Your task to perform on an android device: turn on the 12-hour format for clock Image 0: 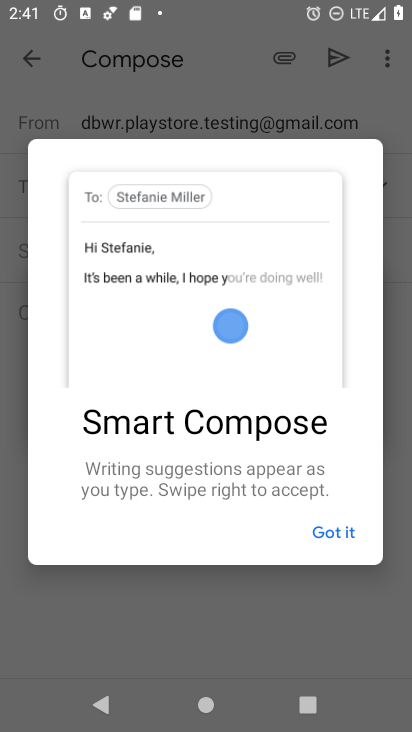
Step 0: press home button
Your task to perform on an android device: turn on the 12-hour format for clock Image 1: 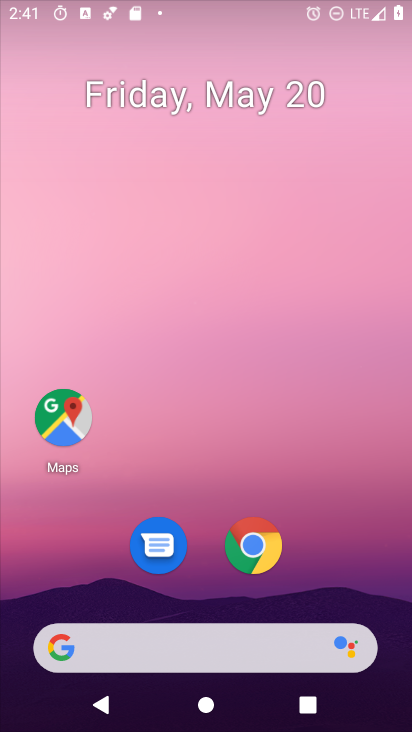
Step 1: drag from (277, 655) to (314, 32)
Your task to perform on an android device: turn on the 12-hour format for clock Image 2: 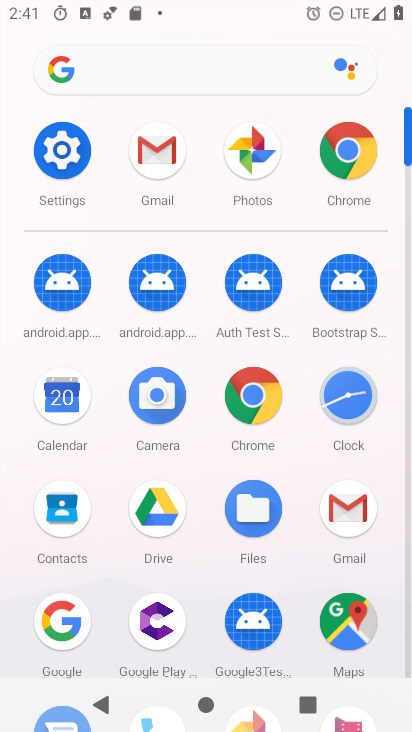
Step 2: click (343, 413)
Your task to perform on an android device: turn on the 12-hour format for clock Image 3: 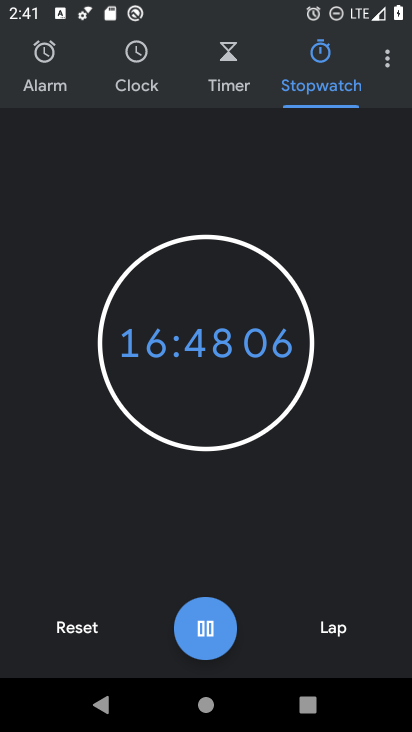
Step 3: drag from (394, 58) to (281, 113)
Your task to perform on an android device: turn on the 12-hour format for clock Image 4: 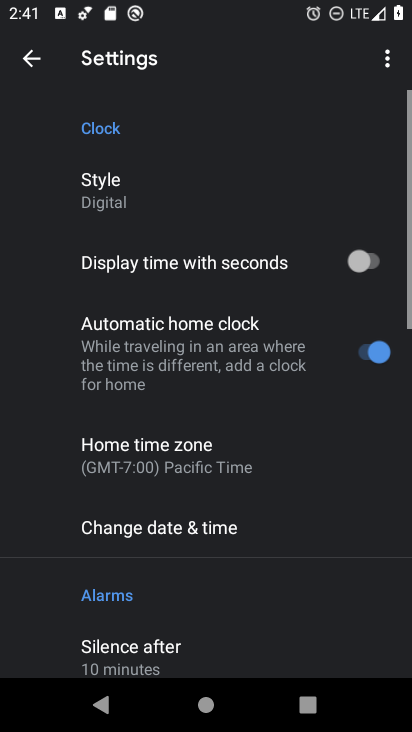
Step 4: drag from (304, 575) to (247, 234)
Your task to perform on an android device: turn on the 12-hour format for clock Image 5: 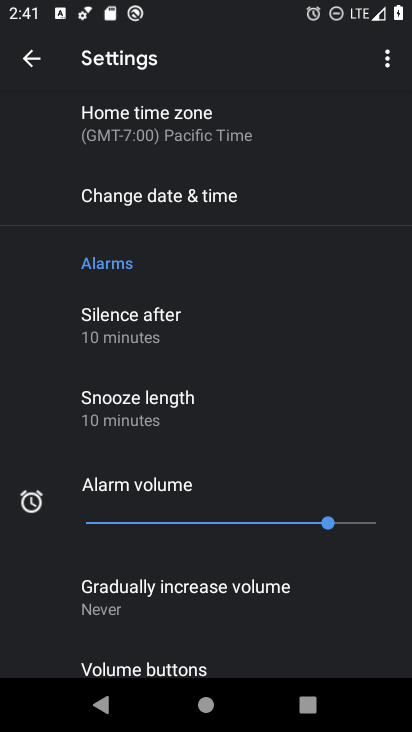
Step 5: click (221, 187)
Your task to perform on an android device: turn on the 12-hour format for clock Image 6: 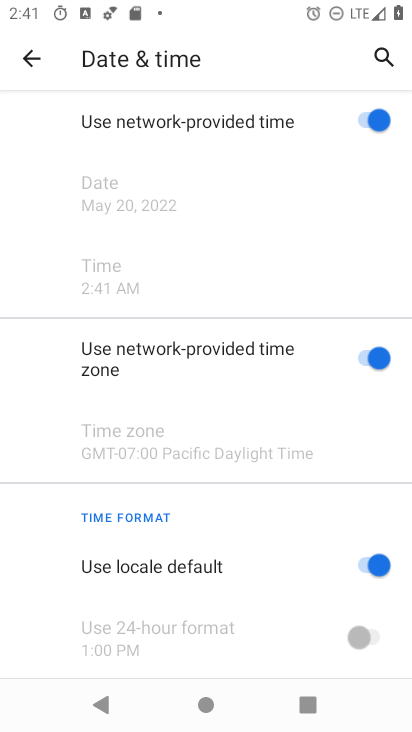
Step 6: drag from (250, 186) to (259, 633)
Your task to perform on an android device: turn on the 12-hour format for clock Image 7: 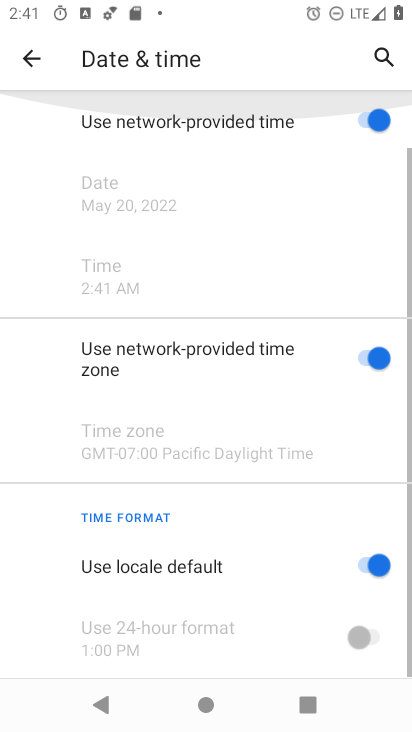
Step 7: drag from (253, 643) to (216, 180)
Your task to perform on an android device: turn on the 12-hour format for clock Image 8: 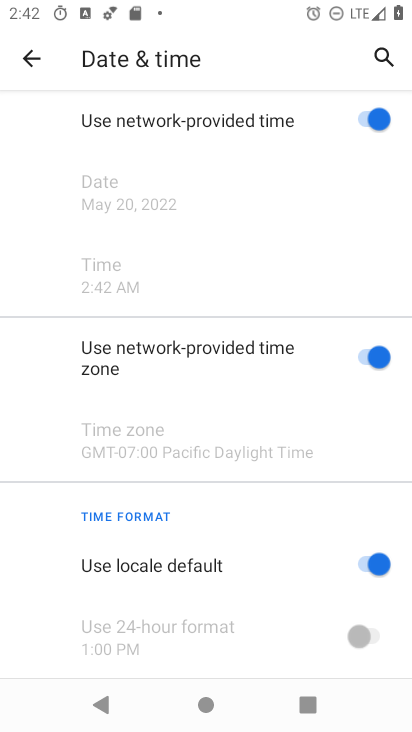
Step 8: drag from (231, 656) to (253, 387)
Your task to perform on an android device: turn on the 12-hour format for clock Image 9: 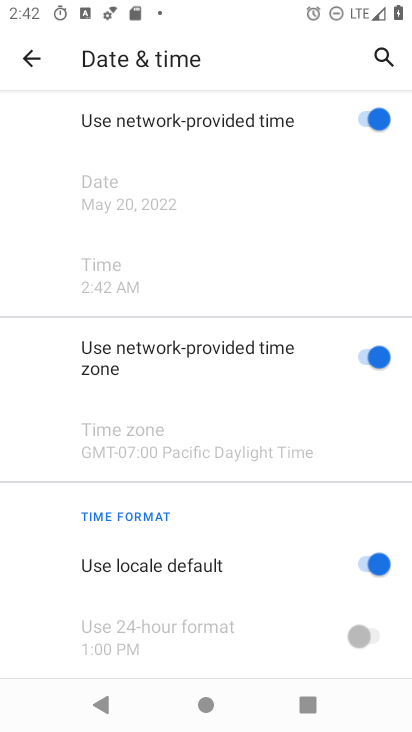
Step 9: click (364, 564)
Your task to perform on an android device: turn on the 12-hour format for clock Image 10: 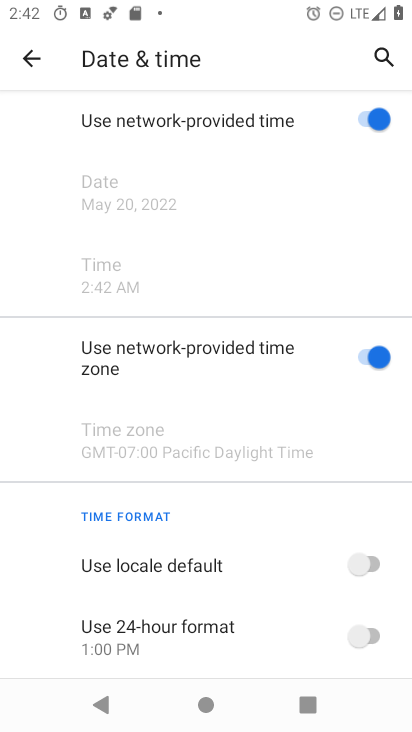
Step 10: task complete